Your task to perform on an android device: turn off notifications settings in the gmail app Image 0: 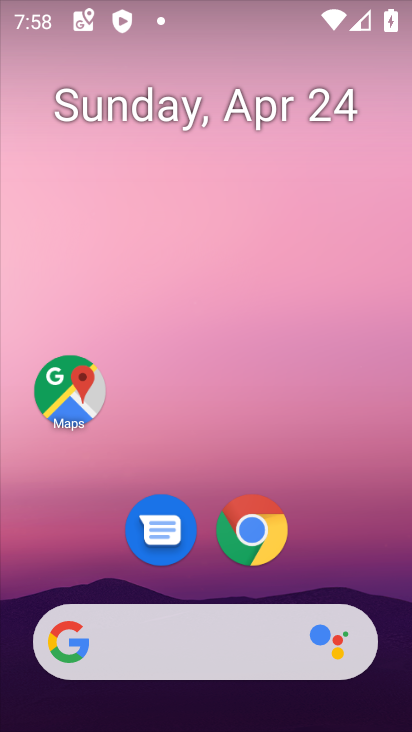
Step 0: task complete